Your task to perform on an android device: turn off notifications in google photos Image 0: 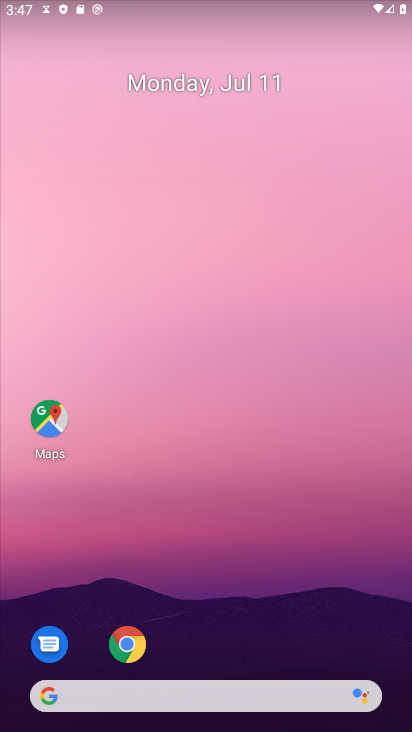
Step 0: click (174, 728)
Your task to perform on an android device: turn off notifications in google photos Image 1: 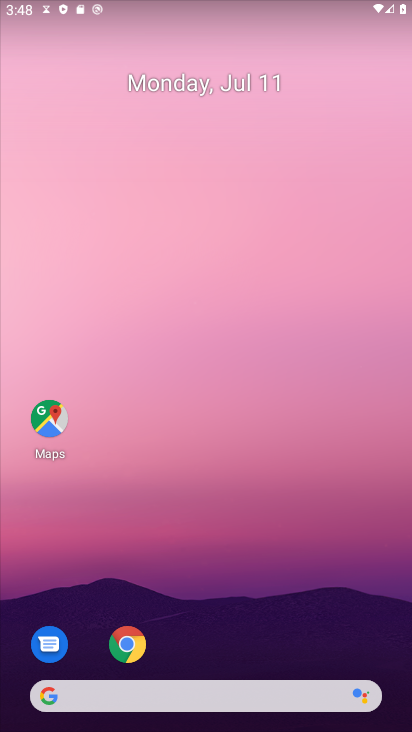
Step 1: click (166, 169)
Your task to perform on an android device: turn off notifications in google photos Image 2: 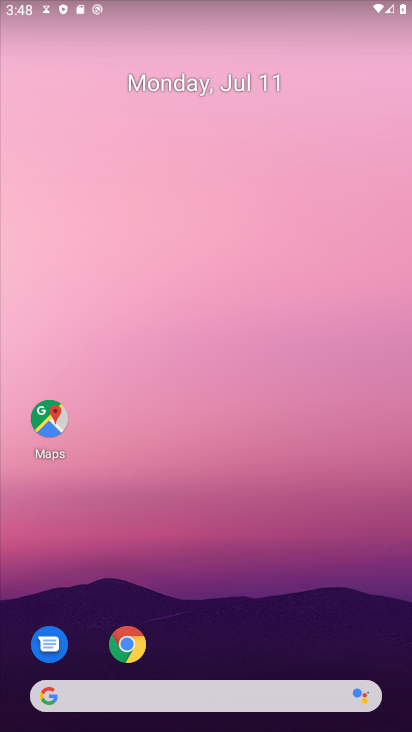
Step 2: click (202, 728)
Your task to perform on an android device: turn off notifications in google photos Image 3: 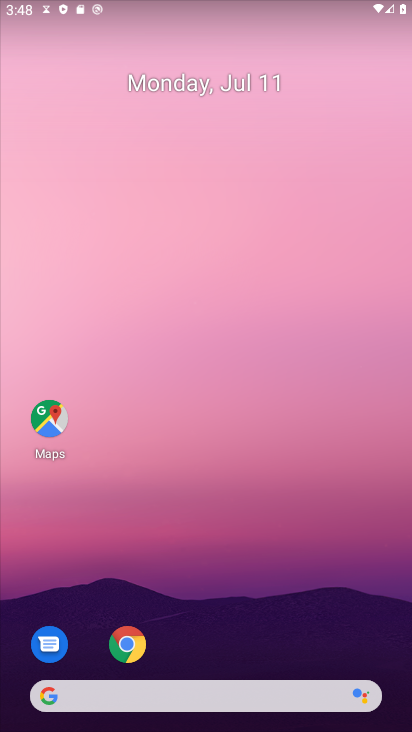
Step 3: drag from (194, 288) to (193, 94)
Your task to perform on an android device: turn off notifications in google photos Image 4: 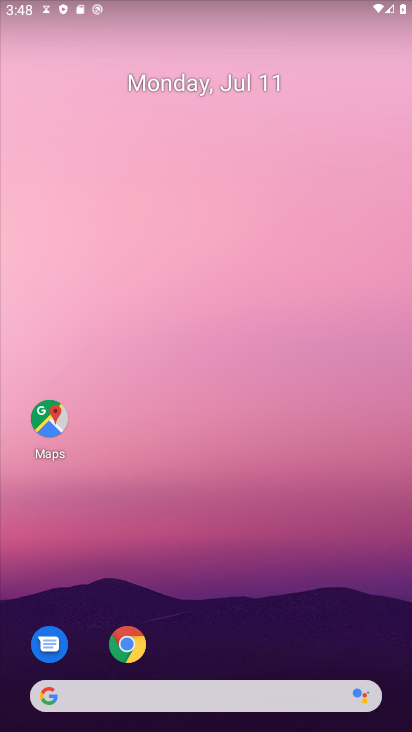
Step 4: drag from (244, 728) to (212, 116)
Your task to perform on an android device: turn off notifications in google photos Image 5: 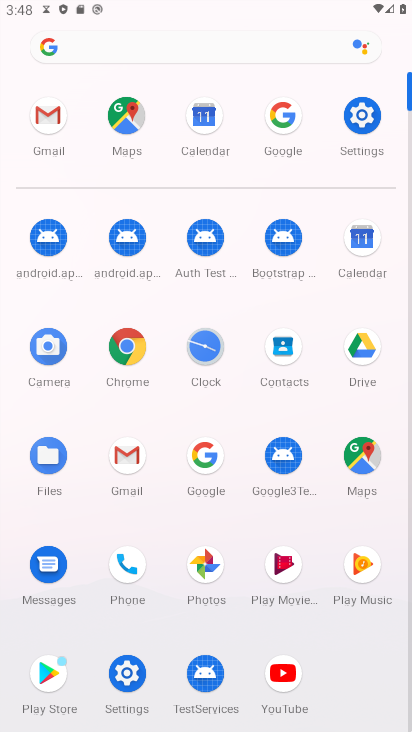
Step 5: click (208, 558)
Your task to perform on an android device: turn off notifications in google photos Image 6: 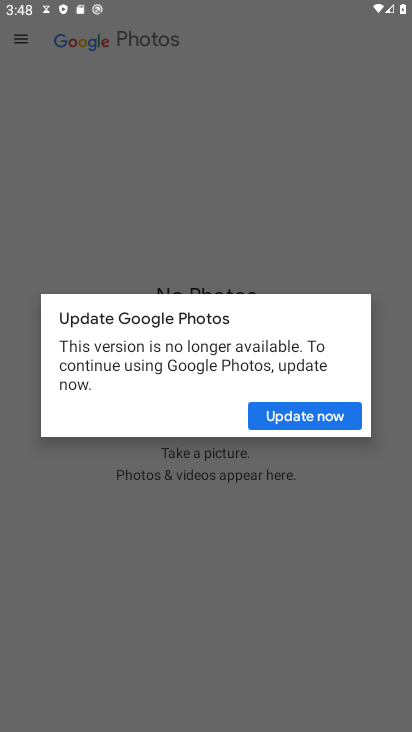
Step 6: task complete